Your task to perform on an android device: visit the assistant section in the google photos Image 0: 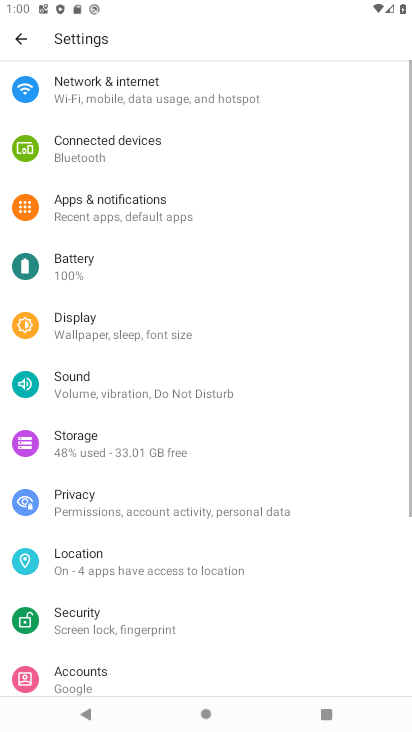
Step 0: press home button
Your task to perform on an android device: visit the assistant section in the google photos Image 1: 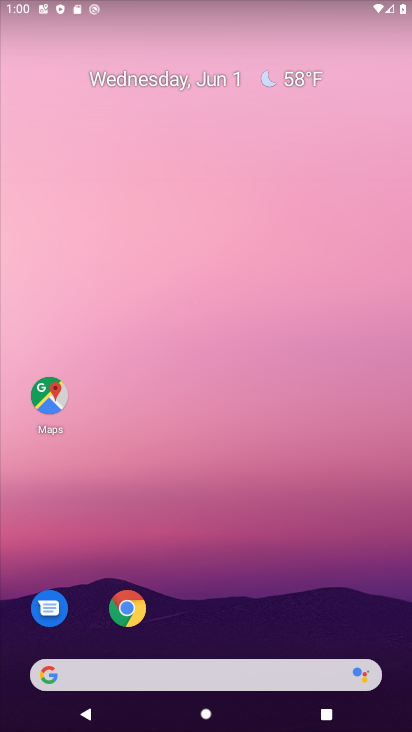
Step 1: drag from (213, 582) to (319, 53)
Your task to perform on an android device: visit the assistant section in the google photos Image 2: 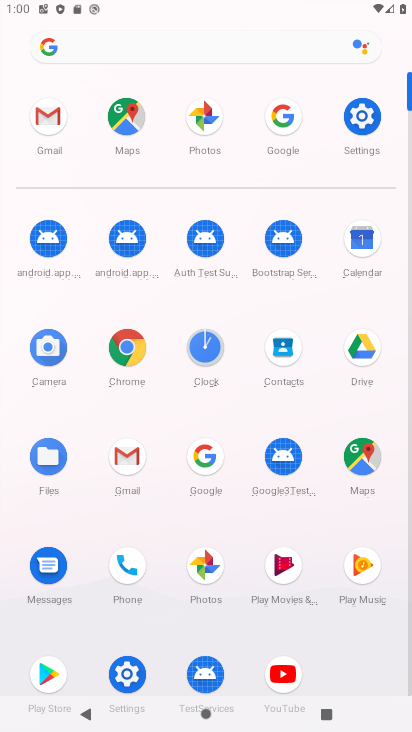
Step 2: click (202, 117)
Your task to perform on an android device: visit the assistant section in the google photos Image 3: 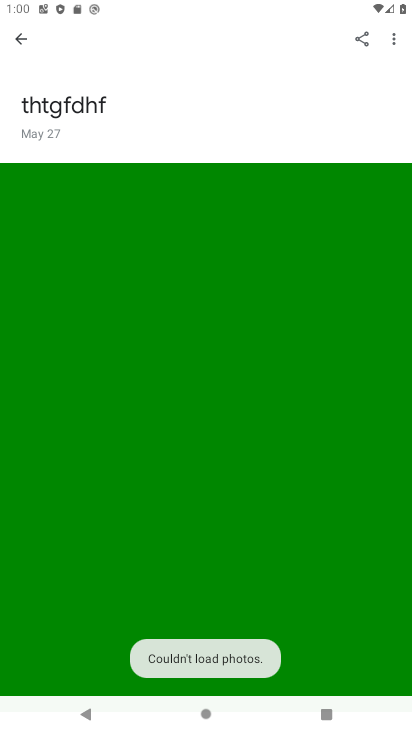
Step 3: click (23, 34)
Your task to perform on an android device: visit the assistant section in the google photos Image 4: 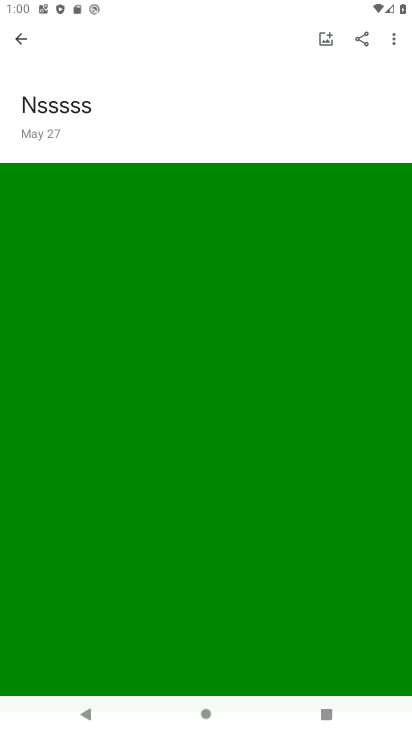
Step 4: click (23, 34)
Your task to perform on an android device: visit the assistant section in the google photos Image 5: 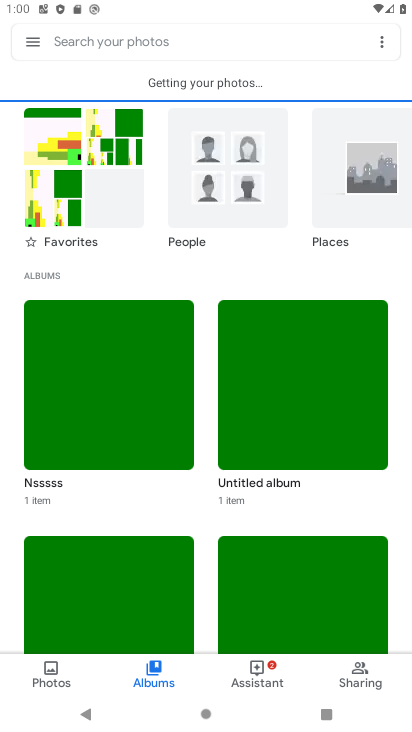
Step 5: click (35, 32)
Your task to perform on an android device: visit the assistant section in the google photos Image 6: 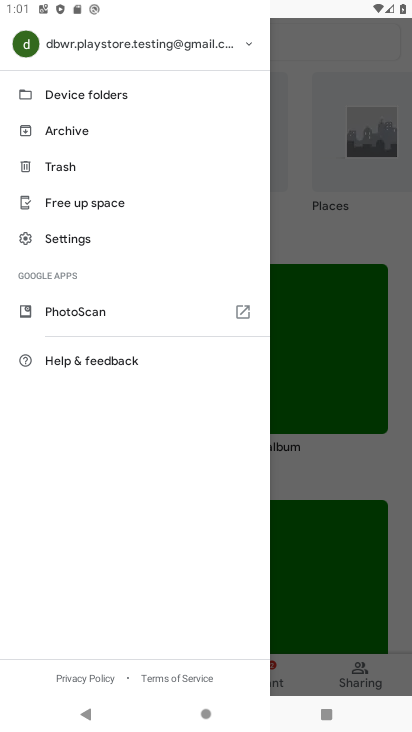
Step 6: click (68, 236)
Your task to perform on an android device: visit the assistant section in the google photos Image 7: 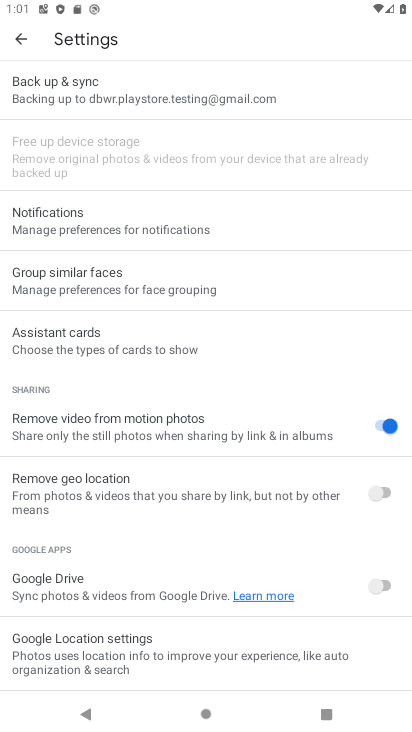
Step 7: drag from (125, 93) to (131, 417)
Your task to perform on an android device: visit the assistant section in the google photos Image 8: 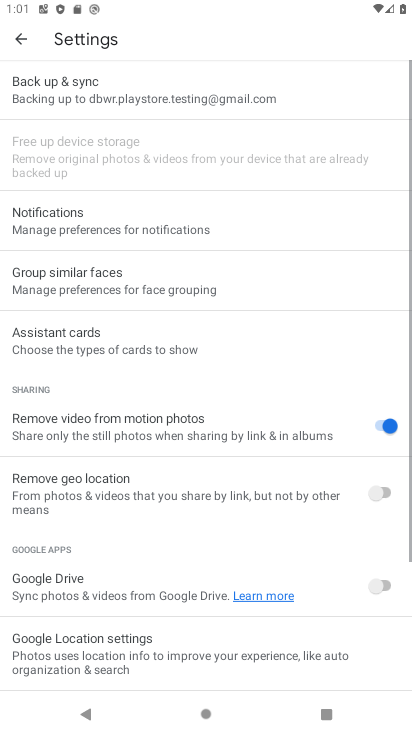
Step 8: drag from (128, 401) to (132, 111)
Your task to perform on an android device: visit the assistant section in the google photos Image 9: 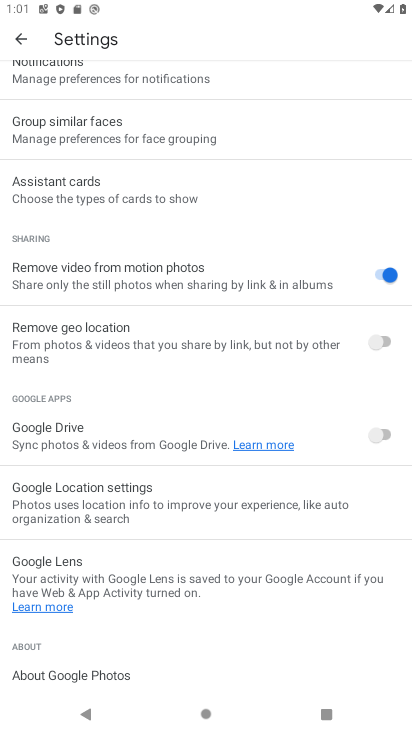
Step 9: click (118, 182)
Your task to perform on an android device: visit the assistant section in the google photos Image 10: 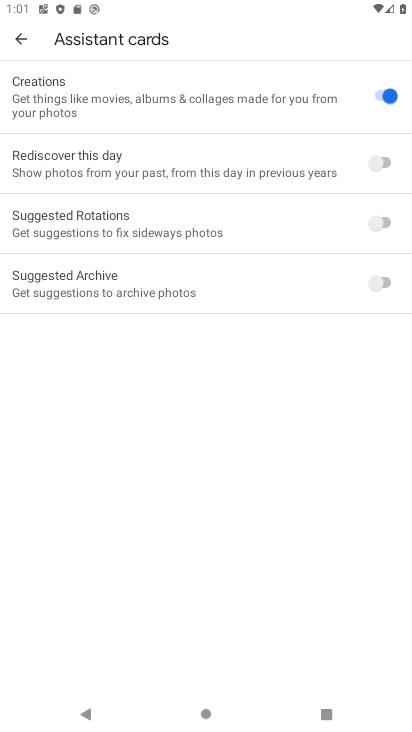
Step 10: press back button
Your task to perform on an android device: visit the assistant section in the google photos Image 11: 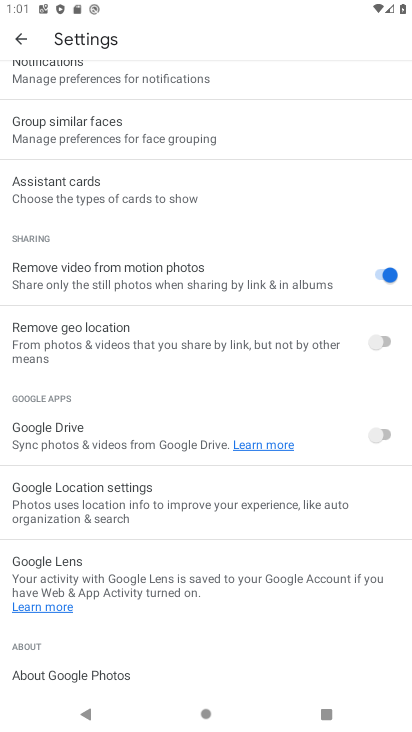
Step 11: press back button
Your task to perform on an android device: visit the assistant section in the google photos Image 12: 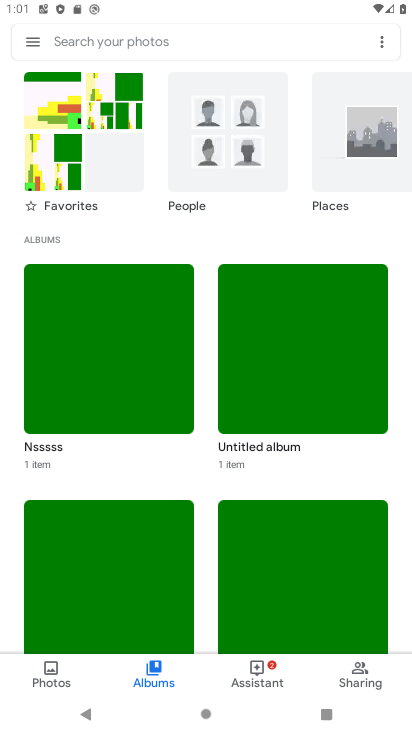
Step 12: click (234, 659)
Your task to perform on an android device: visit the assistant section in the google photos Image 13: 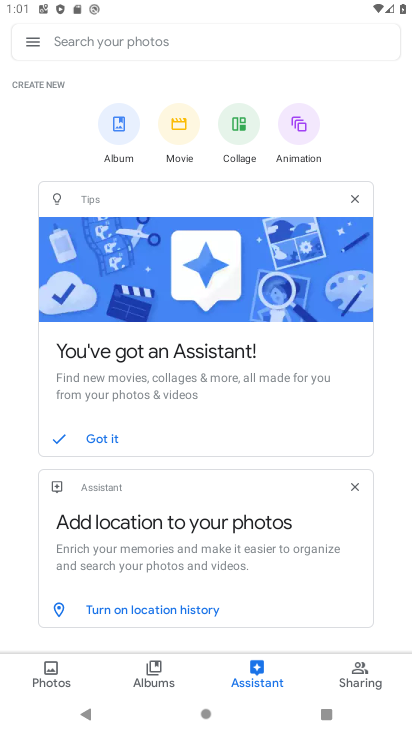
Step 13: task complete